Your task to perform on an android device: Do I have any events this weekend? Image 0: 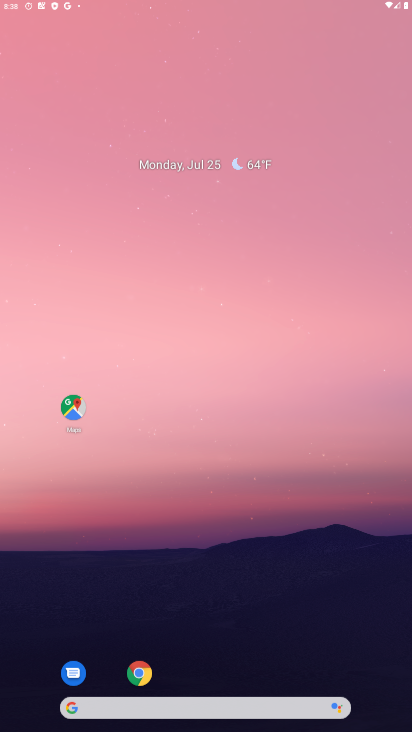
Step 0: drag from (189, 682) to (208, 89)
Your task to perform on an android device: Do I have any events this weekend? Image 1: 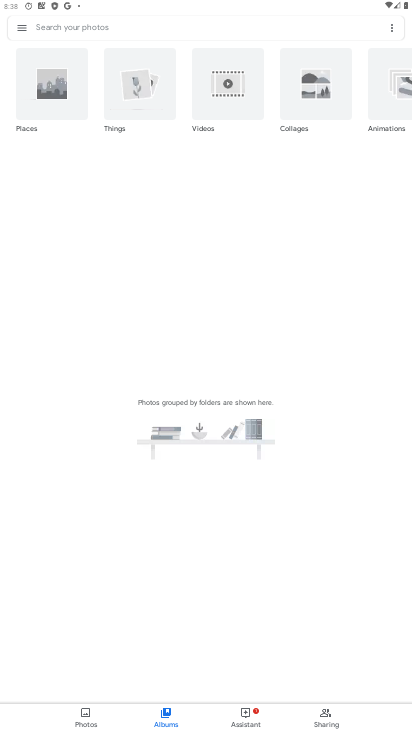
Step 1: press home button
Your task to perform on an android device: Do I have any events this weekend? Image 2: 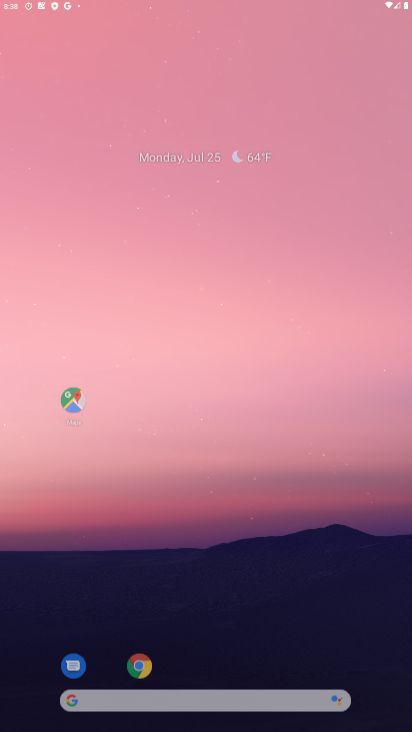
Step 2: drag from (183, 584) to (250, 66)
Your task to perform on an android device: Do I have any events this weekend? Image 3: 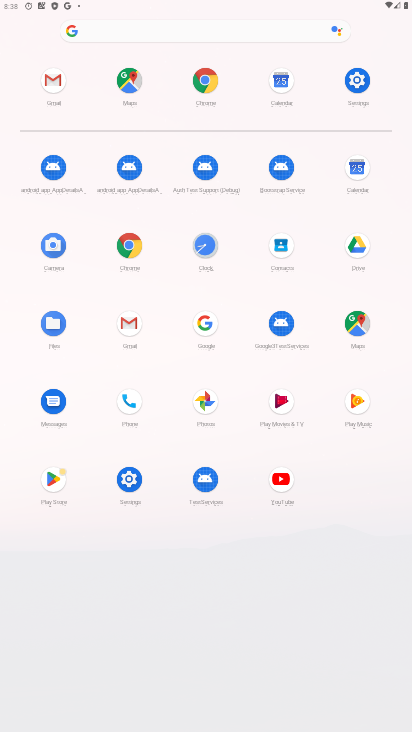
Step 3: click (362, 169)
Your task to perform on an android device: Do I have any events this weekend? Image 4: 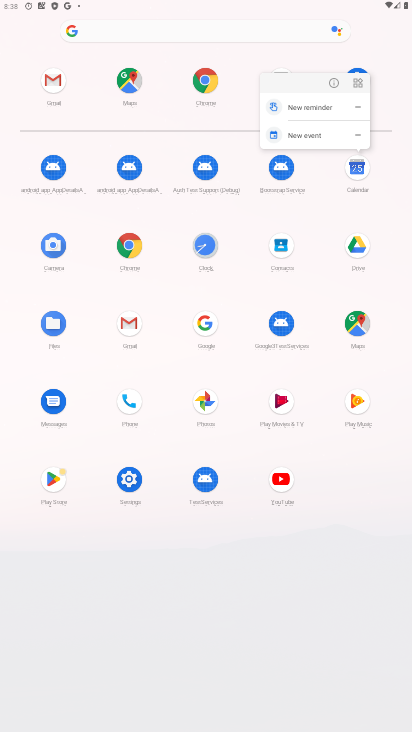
Step 4: click (331, 80)
Your task to perform on an android device: Do I have any events this weekend? Image 5: 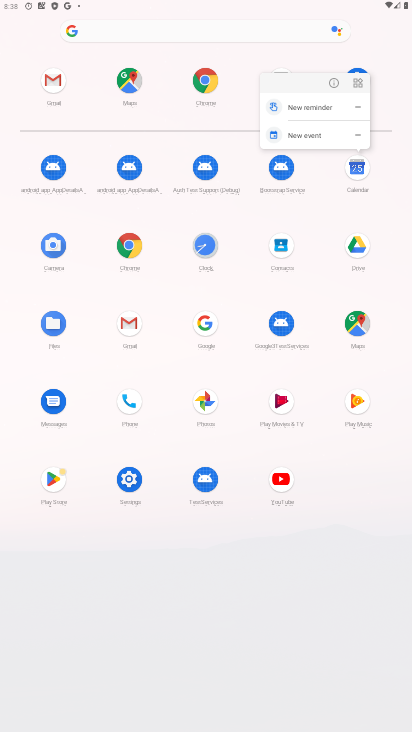
Step 5: click (331, 80)
Your task to perform on an android device: Do I have any events this weekend? Image 6: 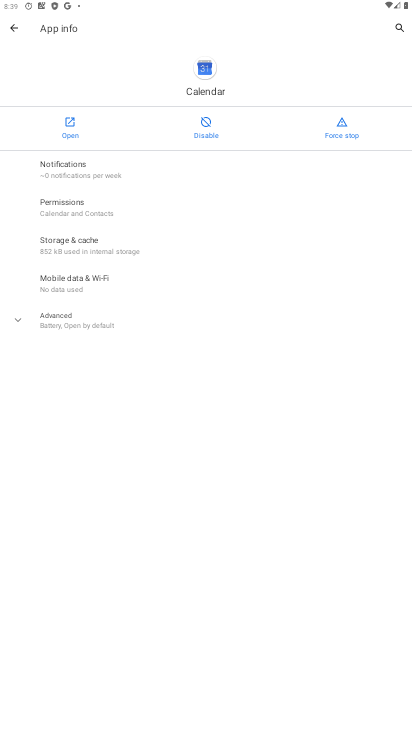
Step 6: click (77, 128)
Your task to perform on an android device: Do I have any events this weekend? Image 7: 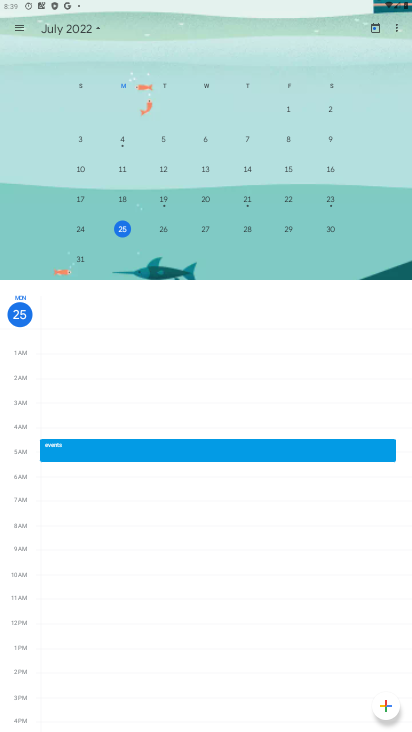
Step 7: click (371, 30)
Your task to perform on an android device: Do I have any events this weekend? Image 8: 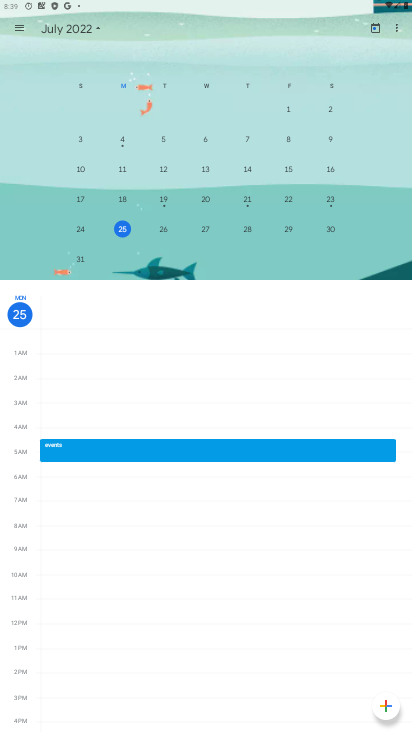
Step 8: click (336, 228)
Your task to perform on an android device: Do I have any events this weekend? Image 9: 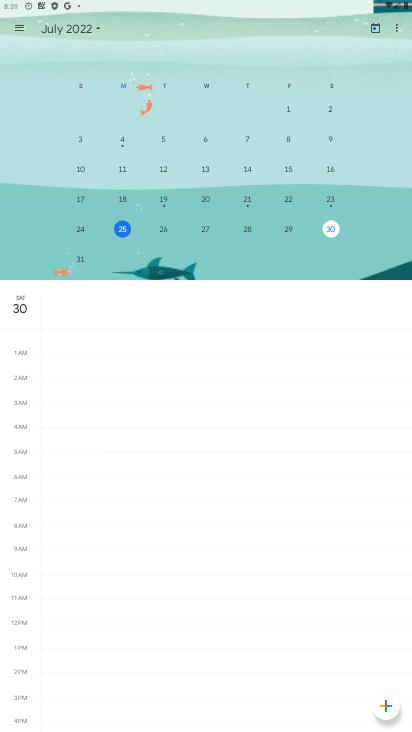
Step 9: task complete